Your task to perform on an android device: check out phone information Image 0: 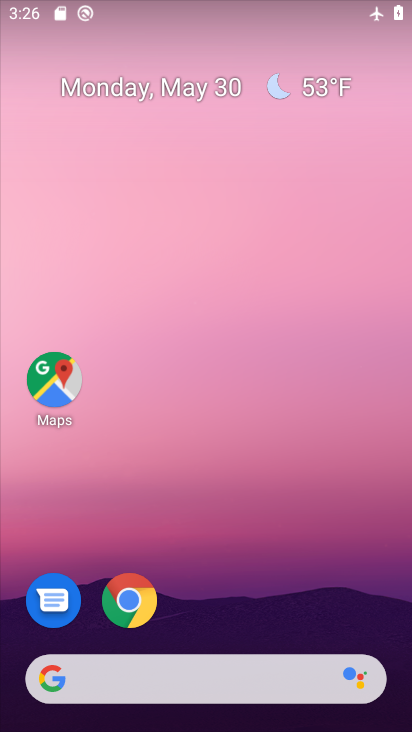
Step 0: drag from (242, 478) to (341, 157)
Your task to perform on an android device: check out phone information Image 1: 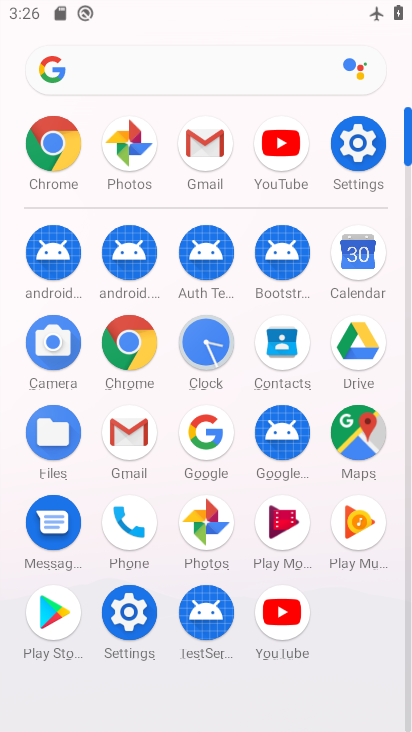
Step 1: click (380, 139)
Your task to perform on an android device: check out phone information Image 2: 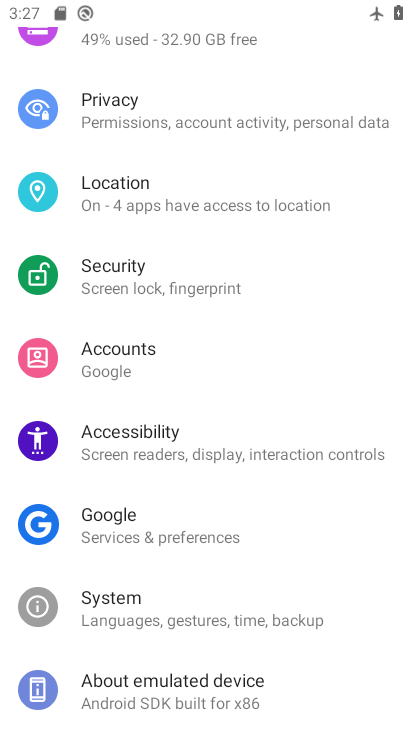
Step 2: drag from (307, 168) to (247, 549)
Your task to perform on an android device: check out phone information Image 3: 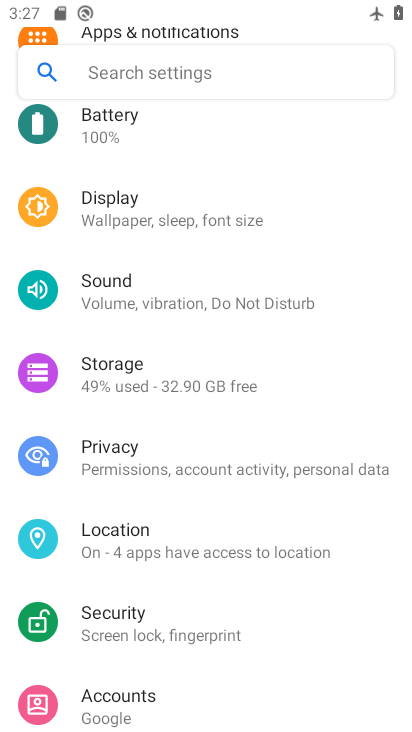
Step 3: drag from (203, 617) to (323, 187)
Your task to perform on an android device: check out phone information Image 4: 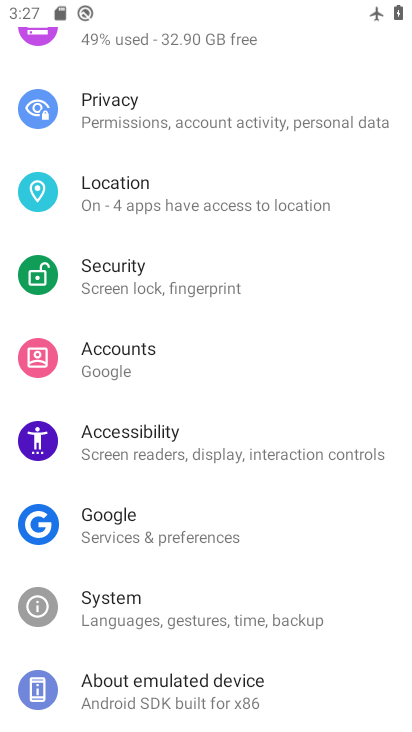
Step 4: drag from (199, 508) to (328, 109)
Your task to perform on an android device: check out phone information Image 5: 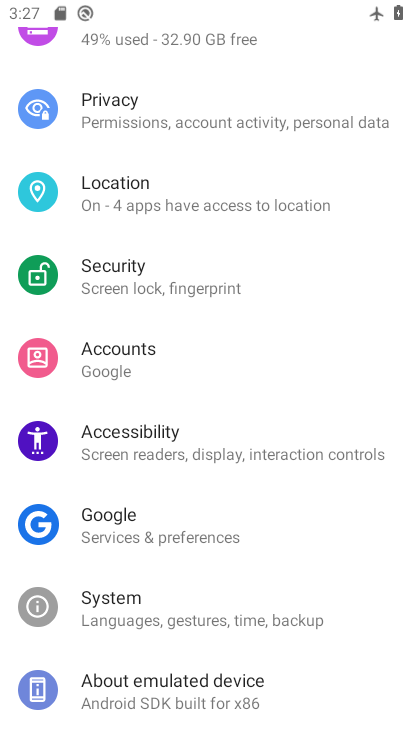
Step 5: click (129, 691)
Your task to perform on an android device: check out phone information Image 6: 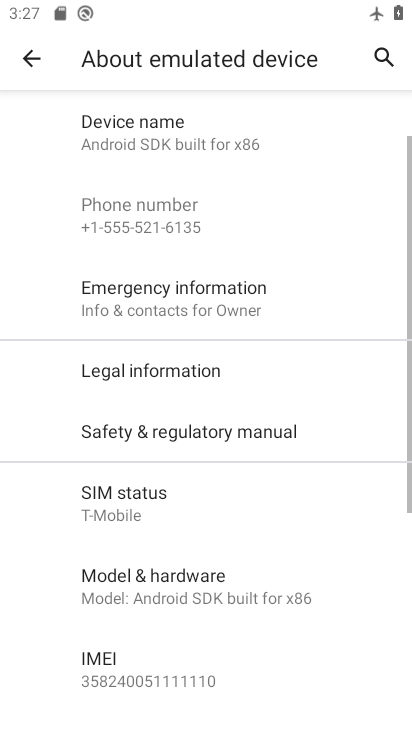
Step 6: task complete